Your task to perform on an android device: Go to Amazon Image 0: 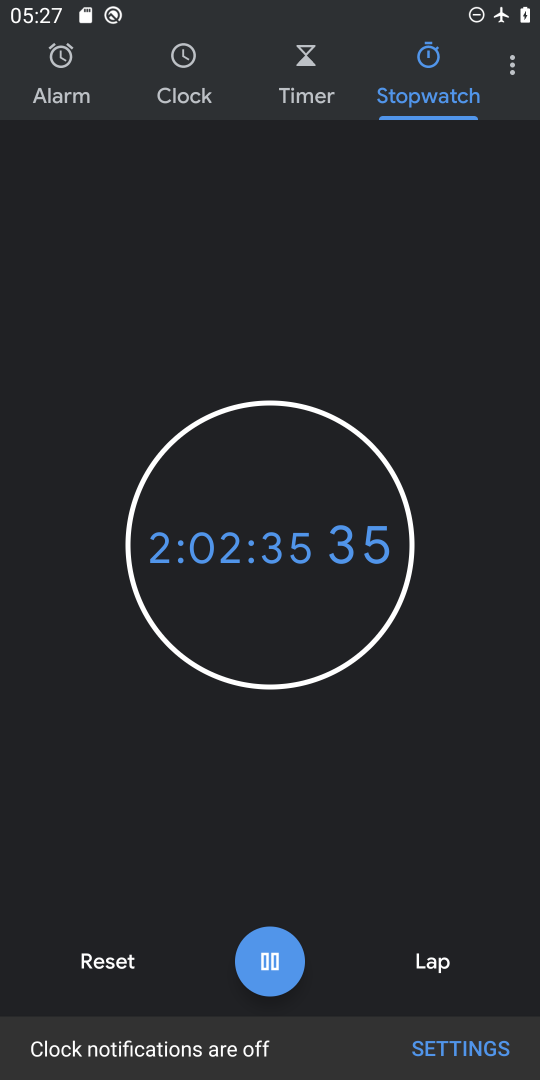
Step 0: press home button
Your task to perform on an android device: Go to Amazon Image 1: 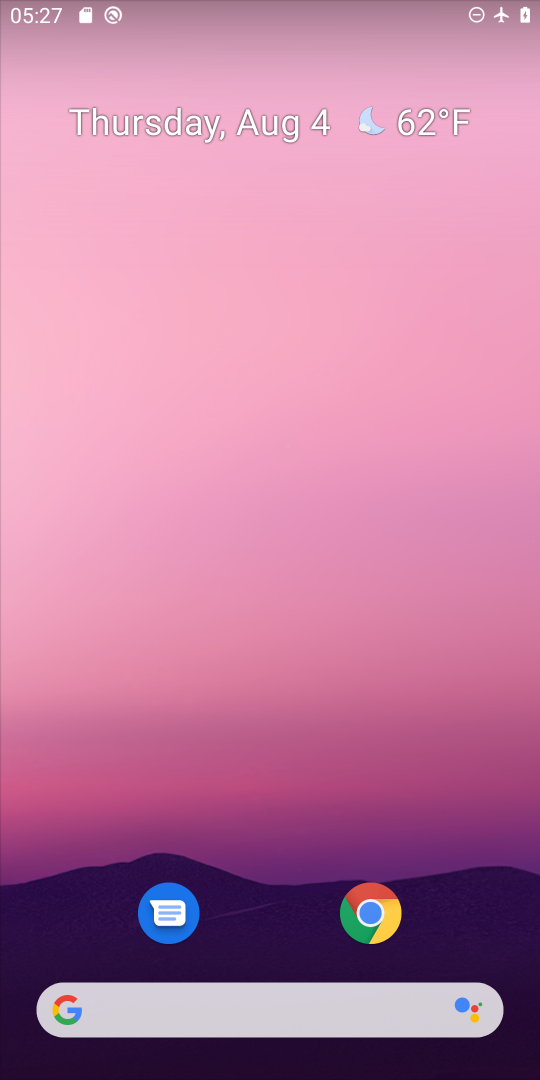
Step 1: drag from (361, 975) to (530, 24)
Your task to perform on an android device: Go to Amazon Image 2: 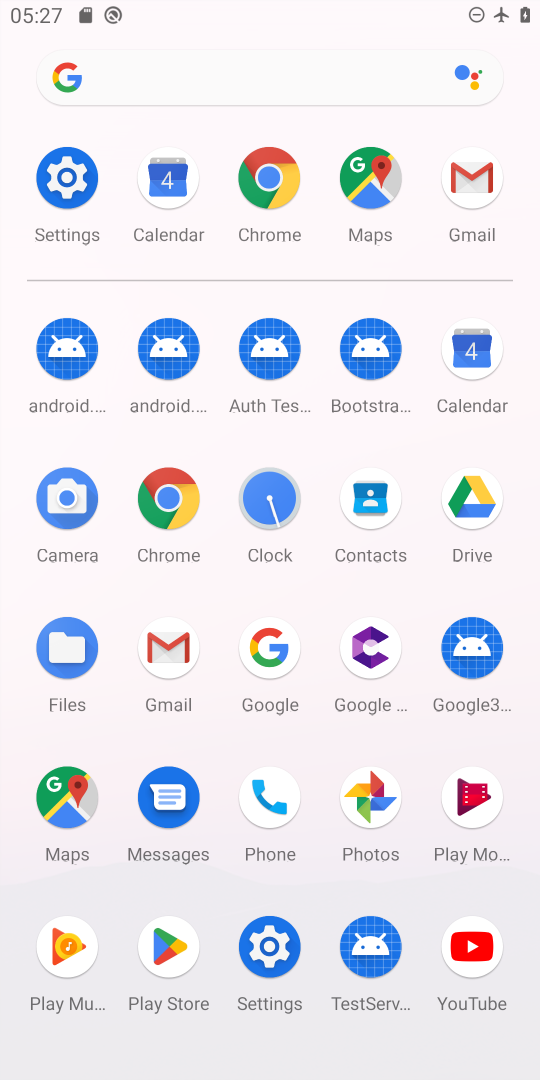
Step 2: click (268, 929)
Your task to perform on an android device: Go to Amazon Image 3: 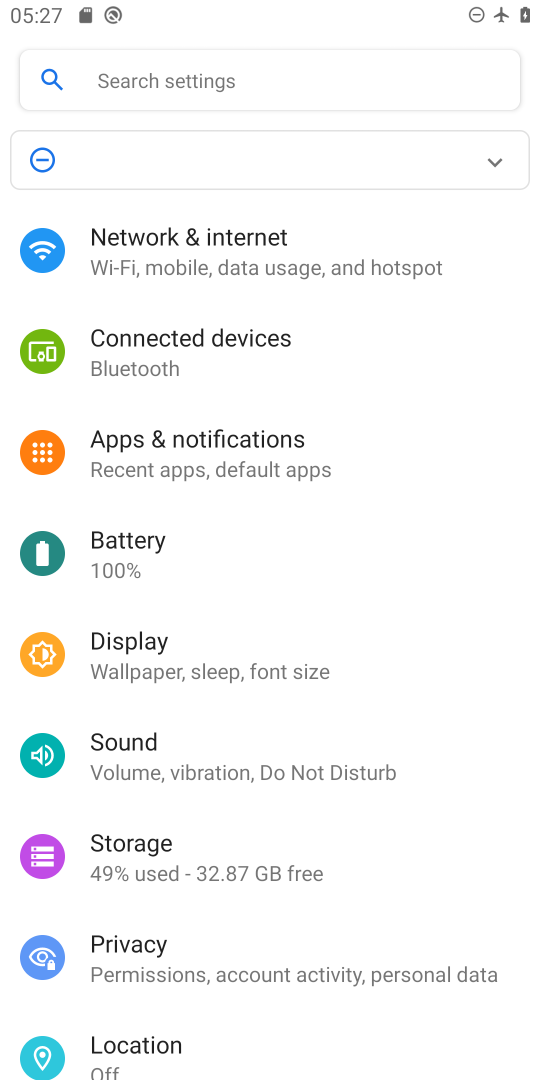
Step 3: press home button
Your task to perform on an android device: Go to Amazon Image 4: 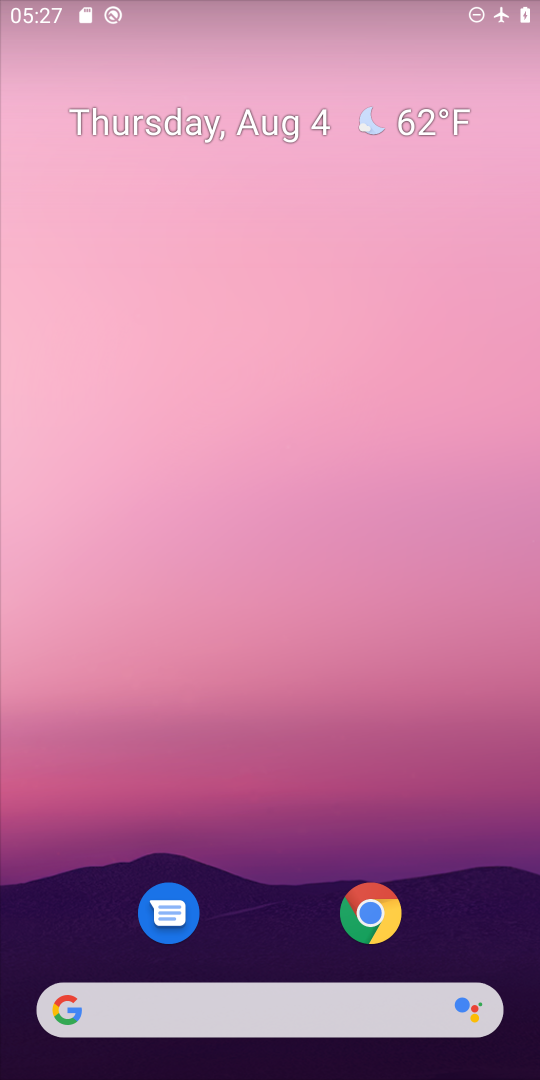
Step 4: drag from (307, 946) to (386, 19)
Your task to perform on an android device: Go to Amazon Image 5: 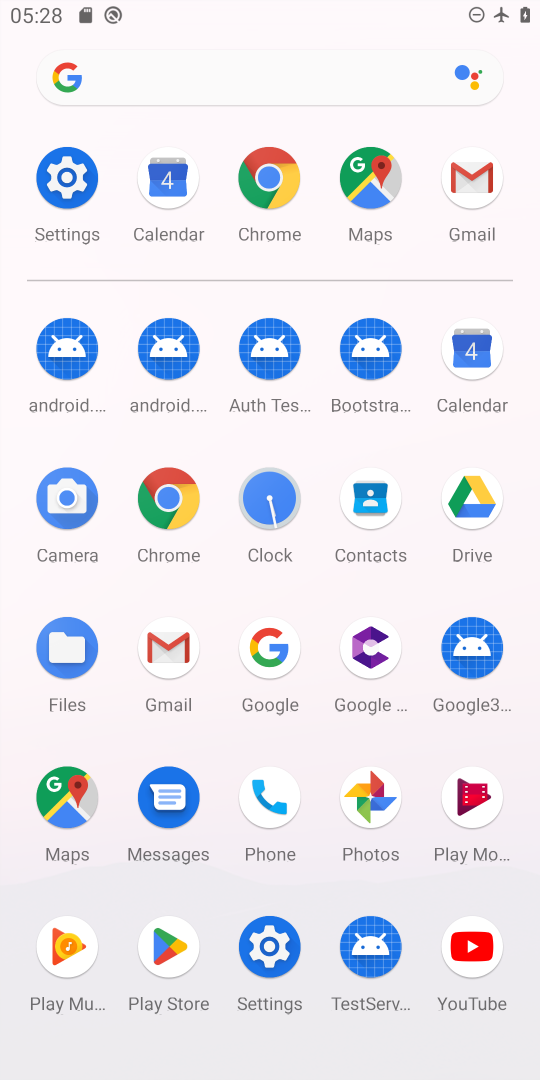
Step 5: click (176, 487)
Your task to perform on an android device: Go to Amazon Image 6: 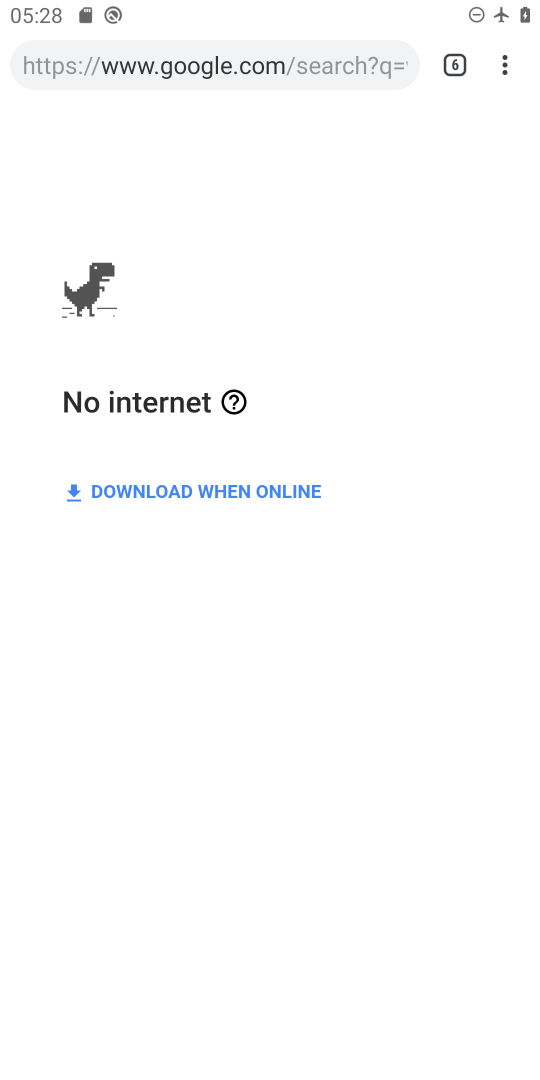
Step 6: click (306, 46)
Your task to perform on an android device: Go to Amazon Image 7: 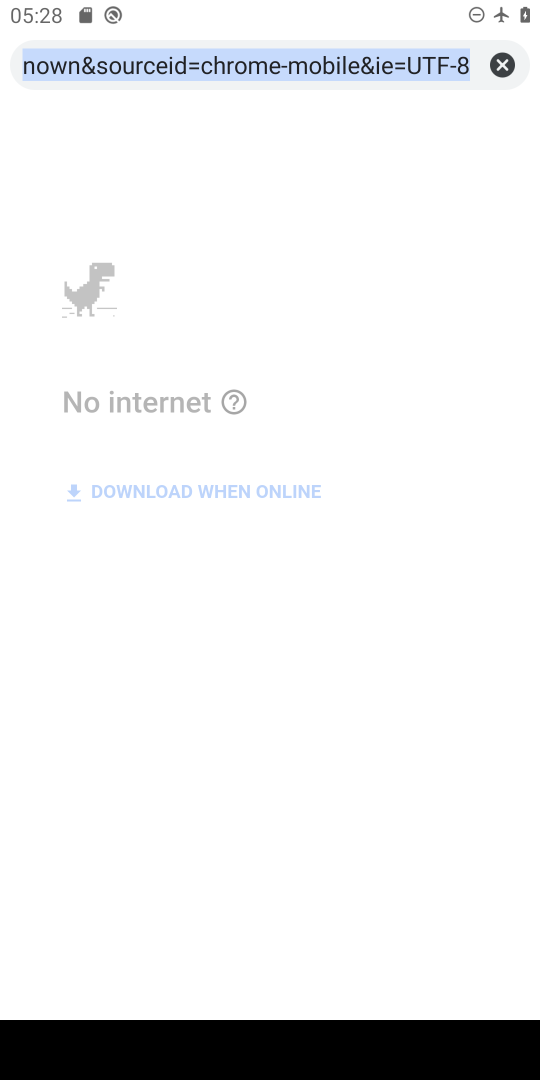
Step 7: type "amazon"
Your task to perform on an android device: Go to Amazon Image 8: 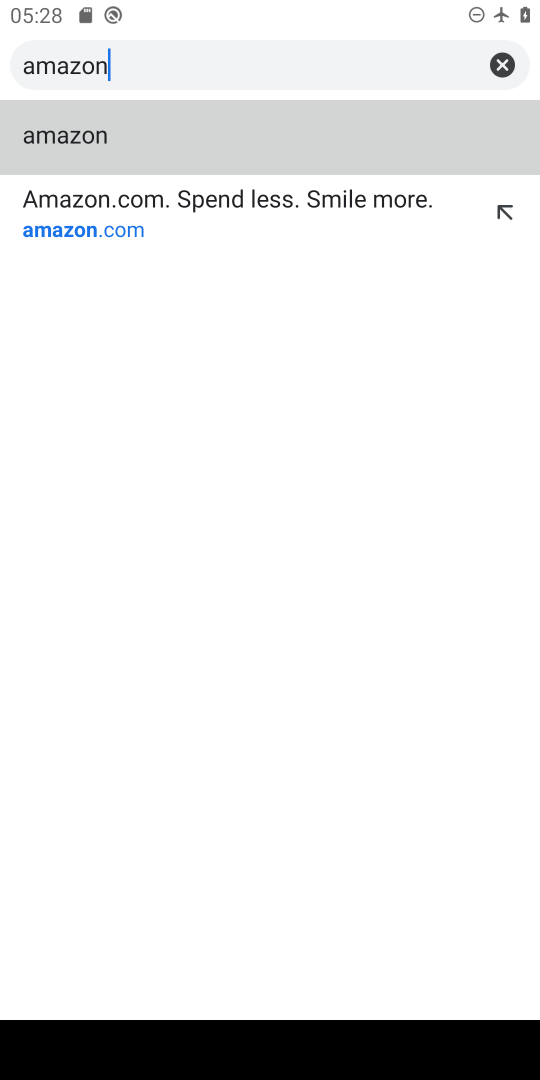
Step 8: click (129, 216)
Your task to perform on an android device: Go to Amazon Image 9: 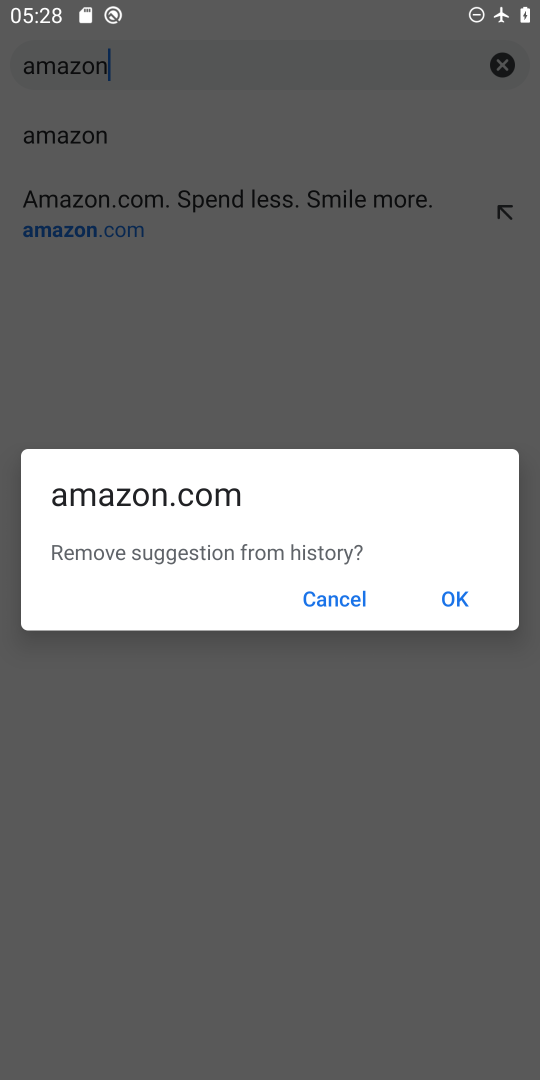
Step 9: click (454, 598)
Your task to perform on an android device: Go to Amazon Image 10: 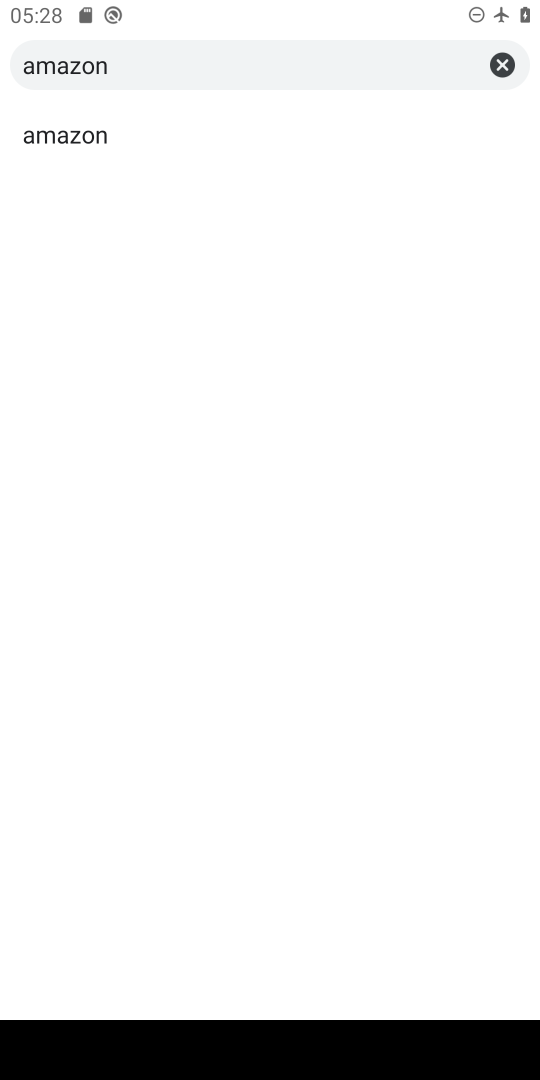
Step 10: click (115, 123)
Your task to perform on an android device: Go to Amazon Image 11: 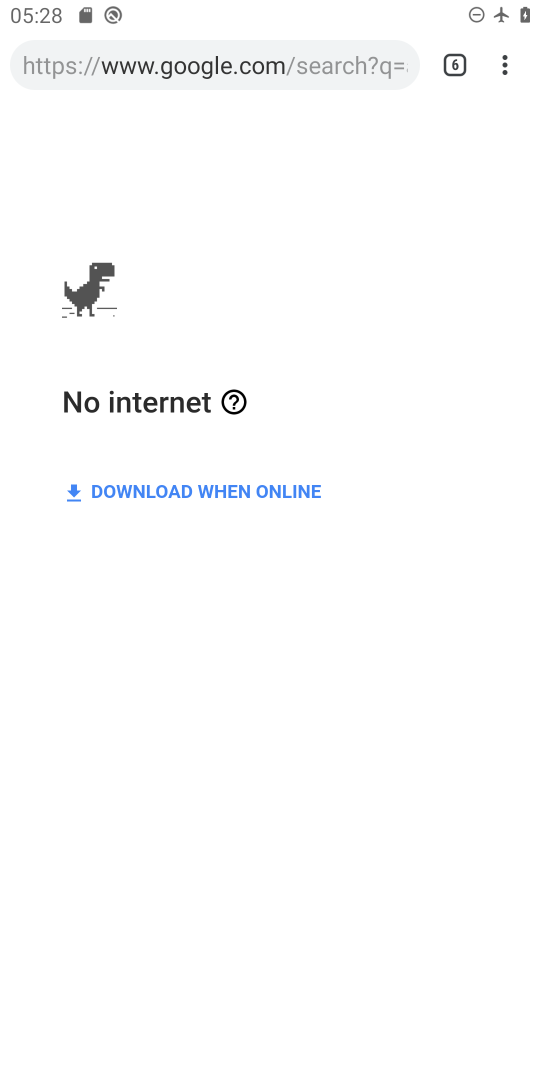
Step 11: task complete